Your task to perform on an android device: empty trash in google photos Image 0: 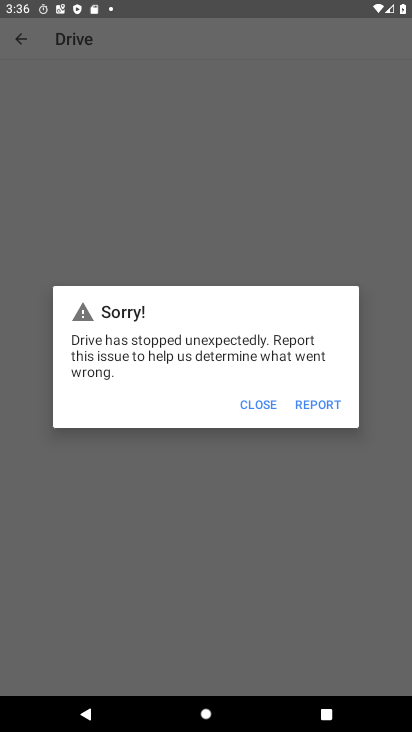
Step 0: press home button
Your task to perform on an android device: empty trash in google photos Image 1: 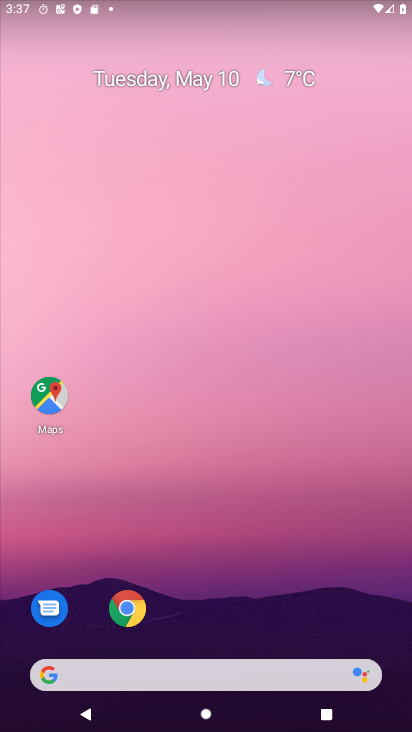
Step 1: drag from (329, 633) to (316, 50)
Your task to perform on an android device: empty trash in google photos Image 2: 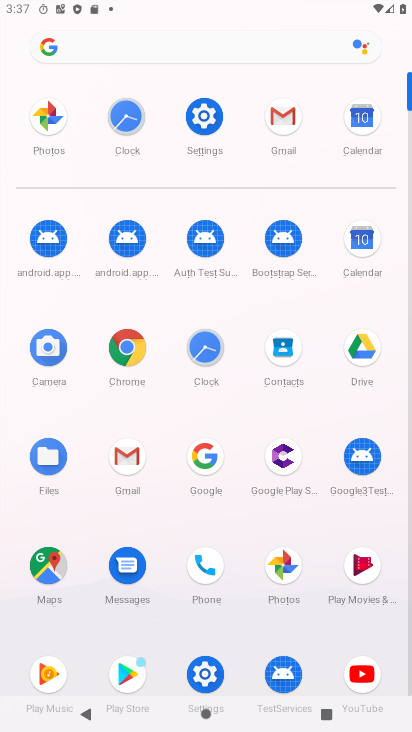
Step 2: click (50, 126)
Your task to perform on an android device: empty trash in google photos Image 3: 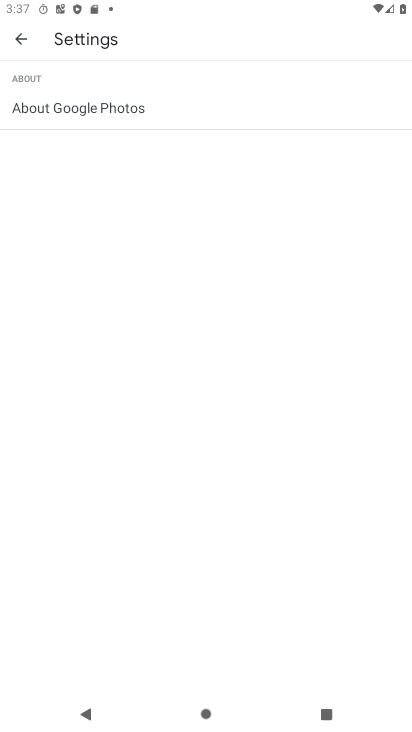
Step 3: click (24, 45)
Your task to perform on an android device: empty trash in google photos Image 4: 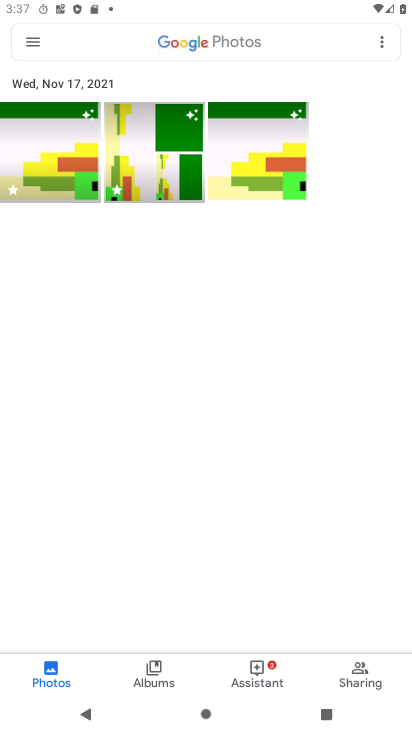
Step 4: click (30, 38)
Your task to perform on an android device: empty trash in google photos Image 5: 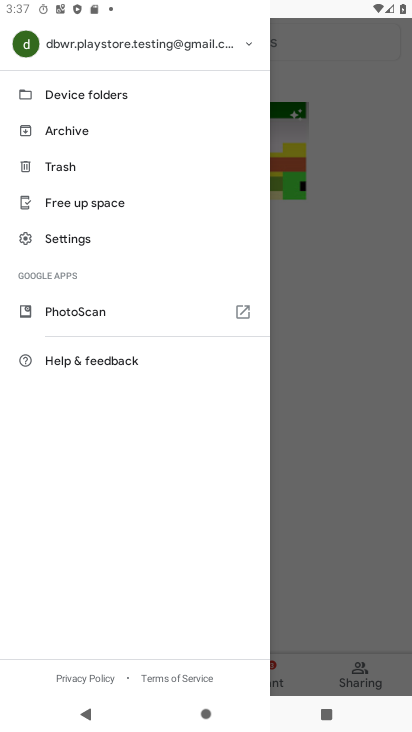
Step 5: click (50, 173)
Your task to perform on an android device: empty trash in google photos Image 6: 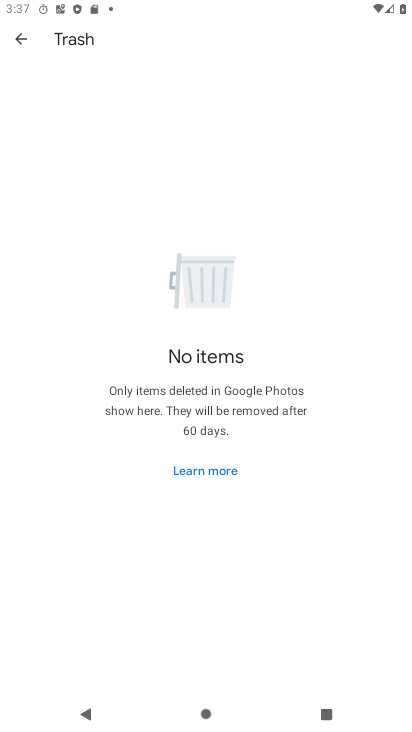
Step 6: task complete